Your task to perform on an android device: Go to display settings Image 0: 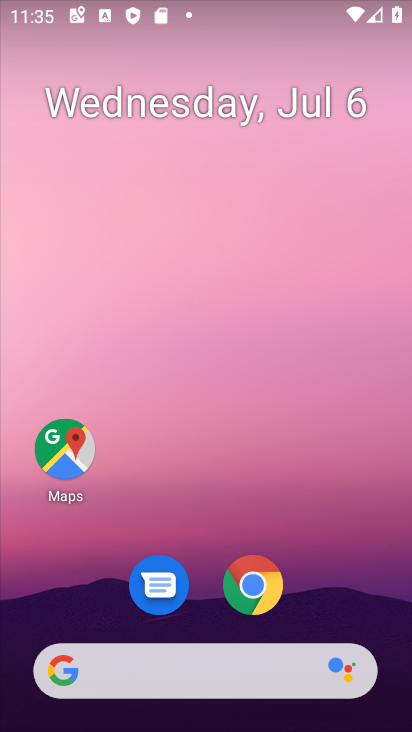
Step 0: drag from (236, 487) to (344, 37)
Your task to perform on an android device: Go to display settings Image 1: 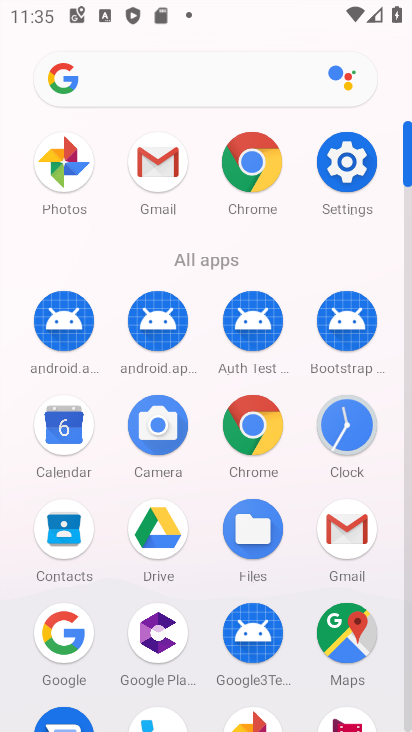
Step 1: click (346, 173)
Your task to perform on an android device: Go to display settings Image 2: 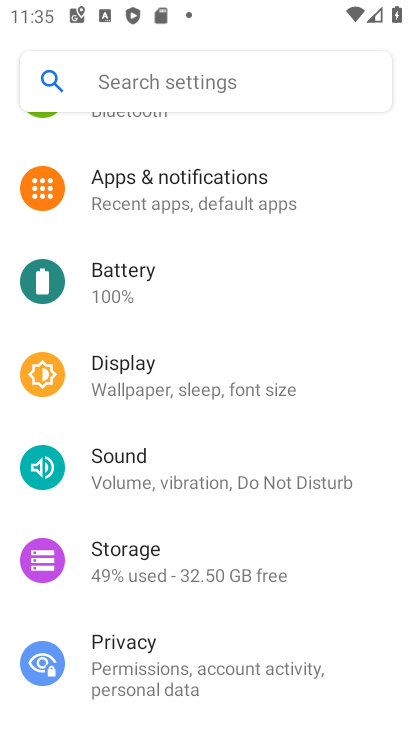
Step 2: click (149, 368)
Your task to perform on an android device: Go to display settings Image 3: 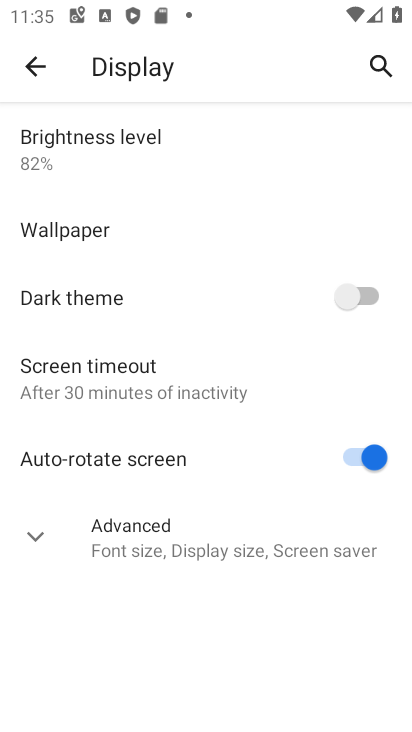
Step 3: click (26, 531)
Your task to perform on an android device: Go to display settings Image 4: 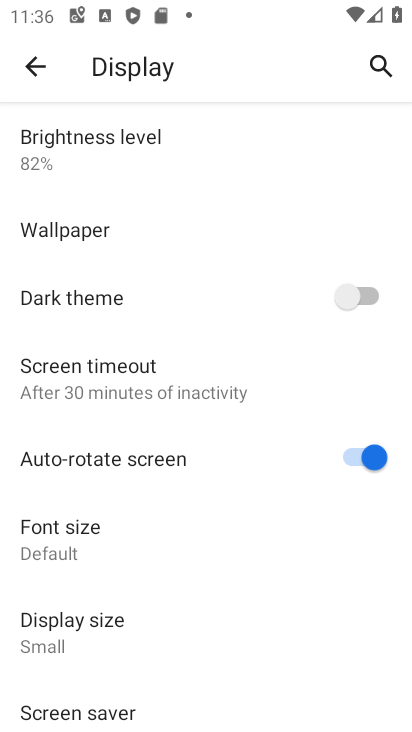
Step 4: task complete